Your task to perform on an android device: Open Amazon Image 0: 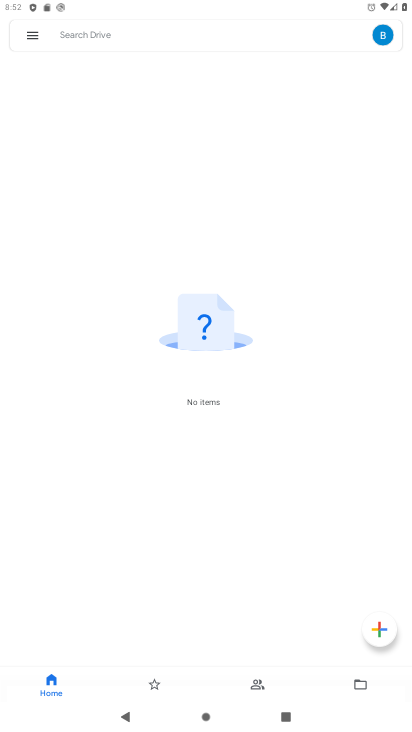
Step 0: press home button
Your task to perform on an android device: Open Amazon Image 1: 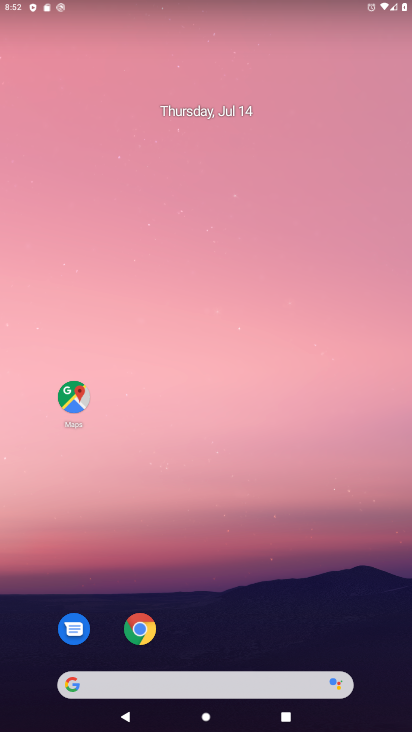
Step 1: click (139, 625)
Your task to perform on an android device: Open Amazon Image 2: 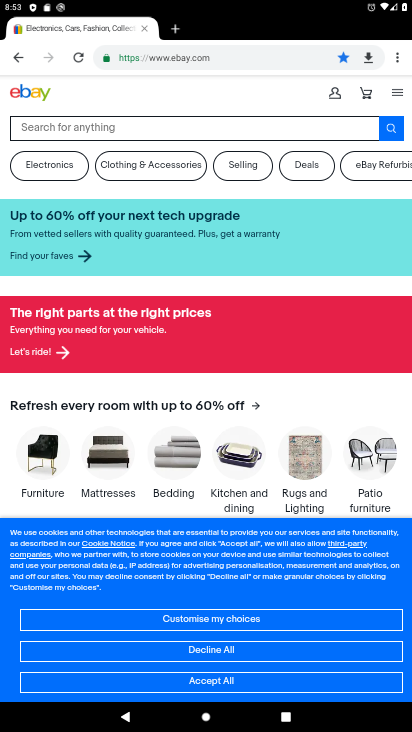
Step 2: click (194, 53)
Your task to perform on an android device: Open Amazon Image 3: 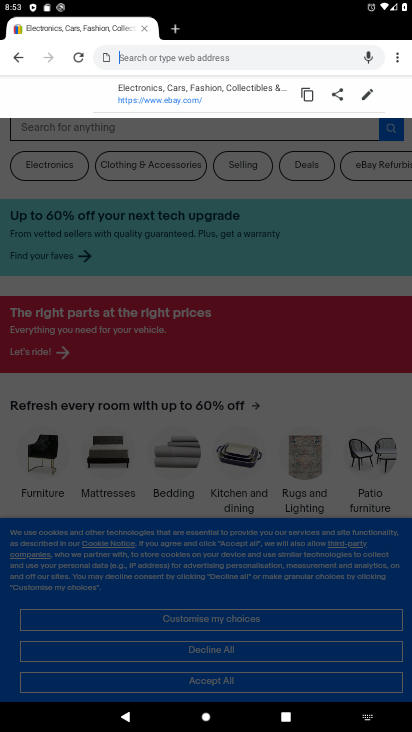
Step 3: type "amazon"
Your task to perform on an android device: Open Amazon Image 4: 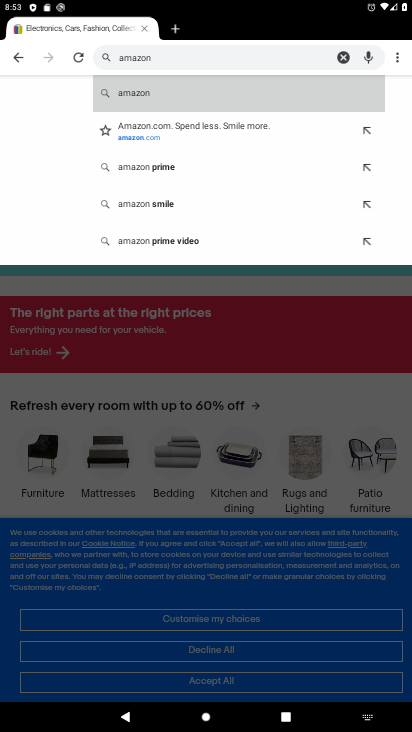
Step 4: click (175, 98)
Your task to perform on an android device: Open Amazon Image 5: 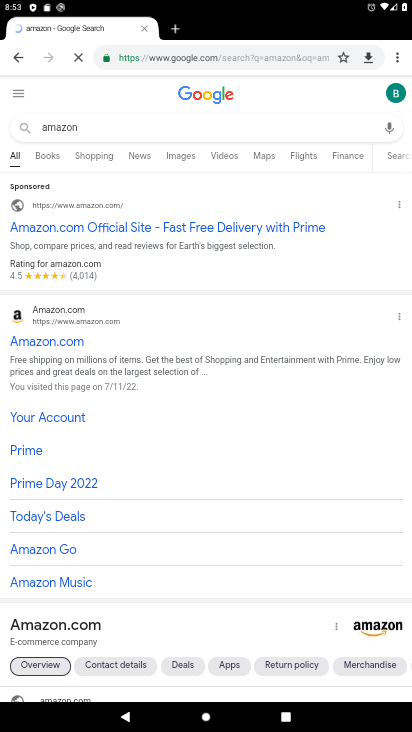
Step 5: click (77, 225)
Your task to perform on an android device: Open Amazon Image 6: 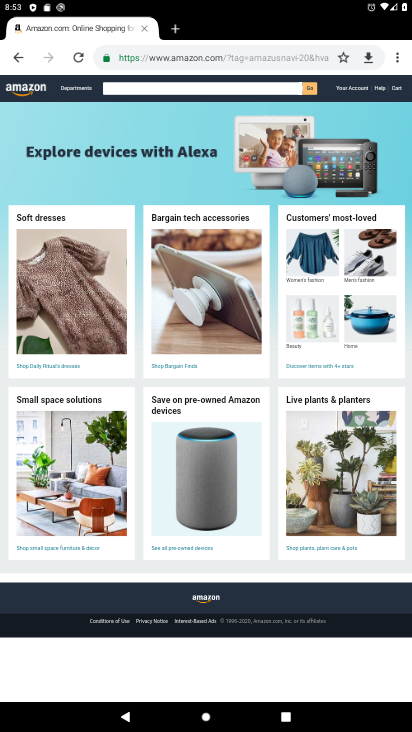
Step 6: task complete